Your task to perform on an android device: change the clock style Image 0: 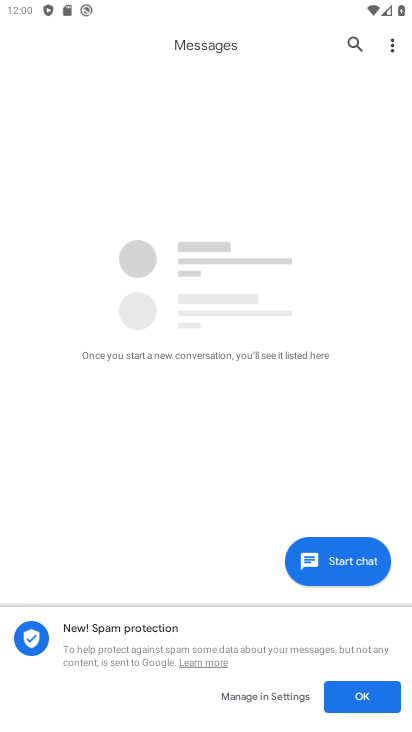
Step 0: press home button
Your task to perform on an android device: change the clock style Image 1: 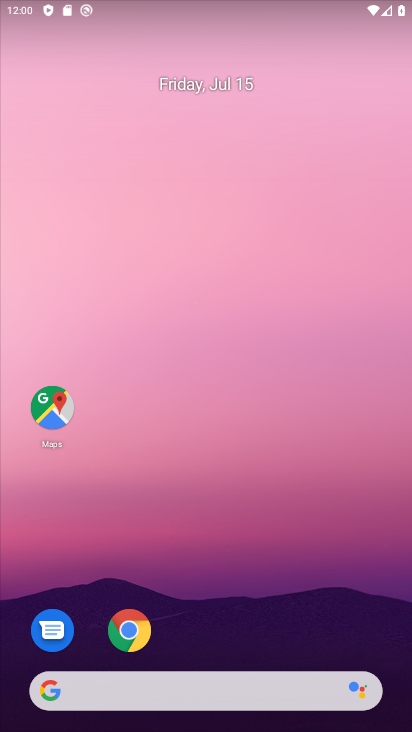
Step 1: drag from (229, 654) to (336, 110)
Your task to perform on an android device: change the clock style Image 2: 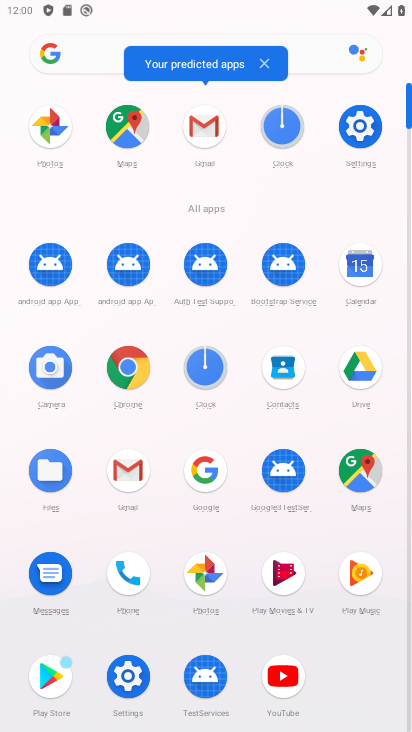
Step 2: click (210, 359)
Your task to perform on an android device: change the clock style Image 3: 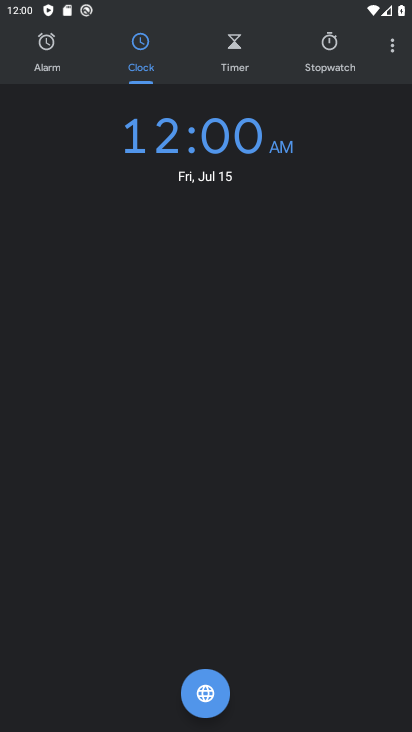
Step 3: click (389, 43)
Your task to perform on an android device: change the clock style Image 4: 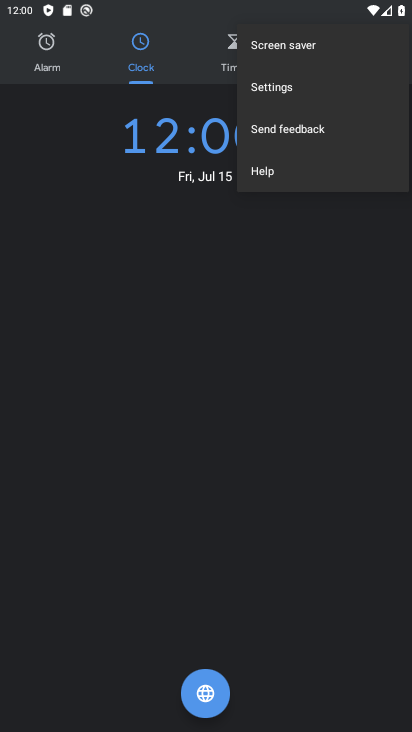
Step 4: click (348, 77)
Your task to perform on an android device: change the clock style Image 5: 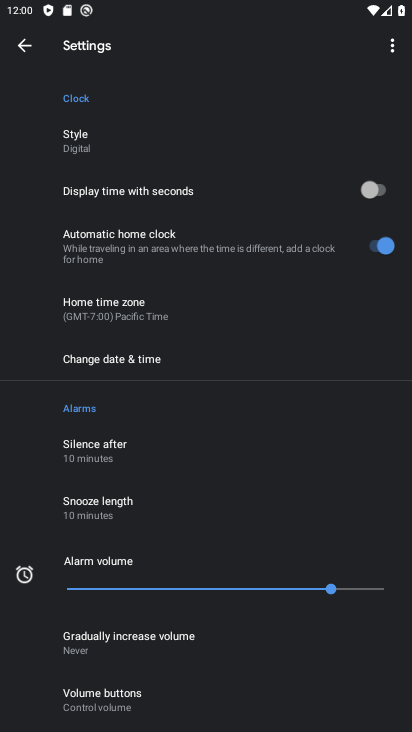
Step 5: click (141, 145)
Your task to perform on an android device: change the clock style Image 6: 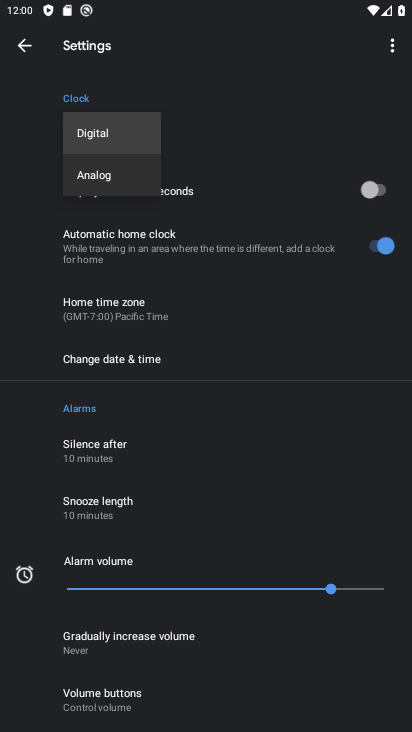
Step 6: click (140, 179)
Your task to perform on an android device: change the clock style Image 7: 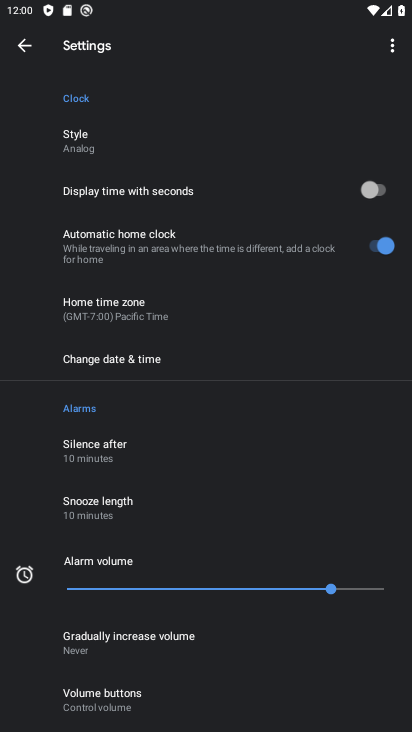
Step 7: task complete